Your task to perform on an android device: change the clock style Image 0: 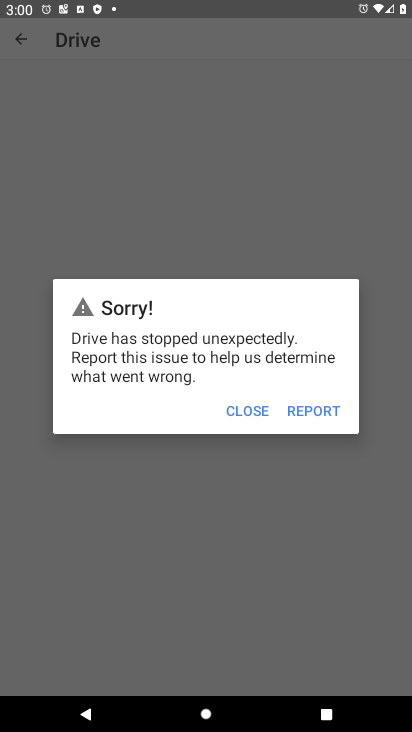
Step 0: press home button
Your task to perform on an android device: change the clock style Image 1: 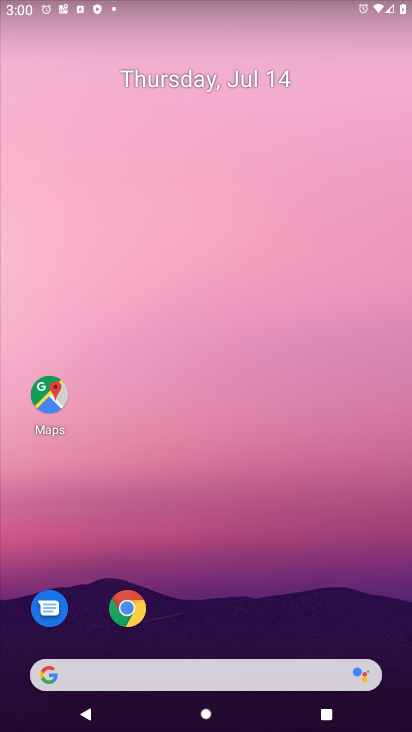
Step 1: drag from (366, 615) to (348, 78)
Your task to perform on an android device: change the clock style Image 2: 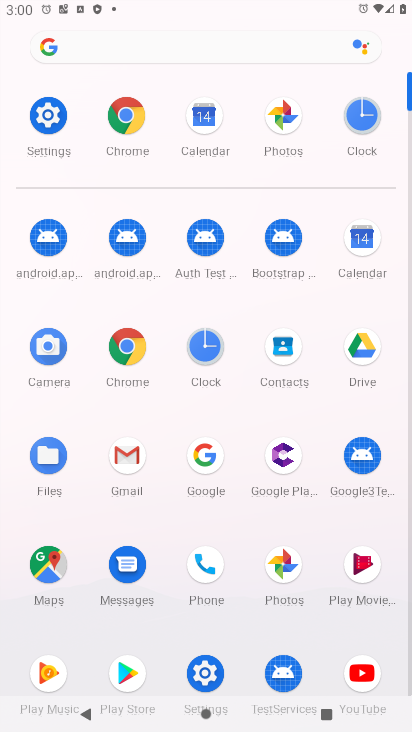
Step 2: click (204, 348)
Your task to perform on an android device: change the clock style Image 3: 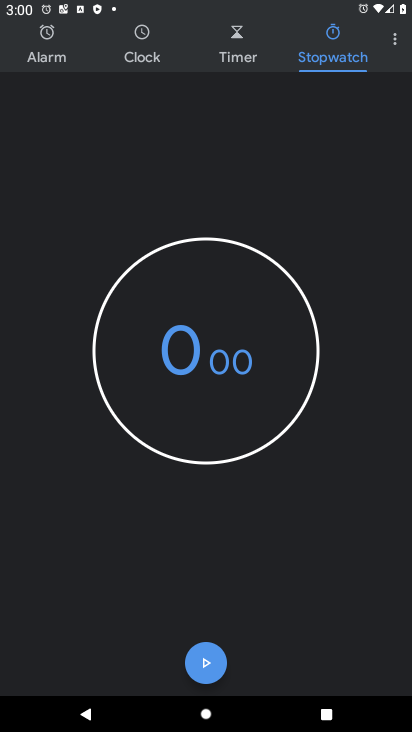
Step 3: click (395, 49)
Your task to perform on an android device: change the clock style Image 4: 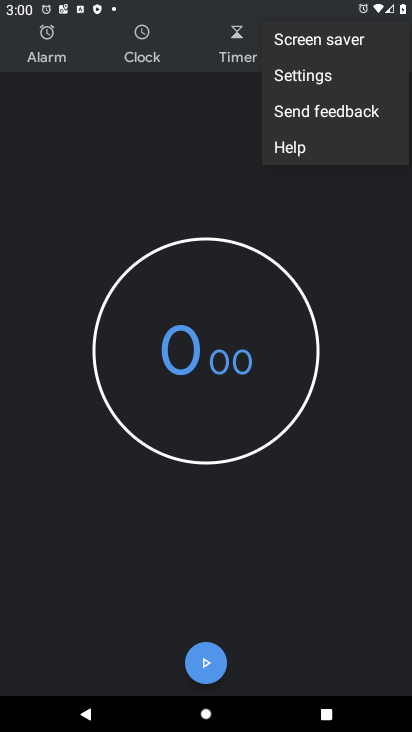
Step 4: click (301, 74)
Your task to perform on an android device: change the clock style Image 5: 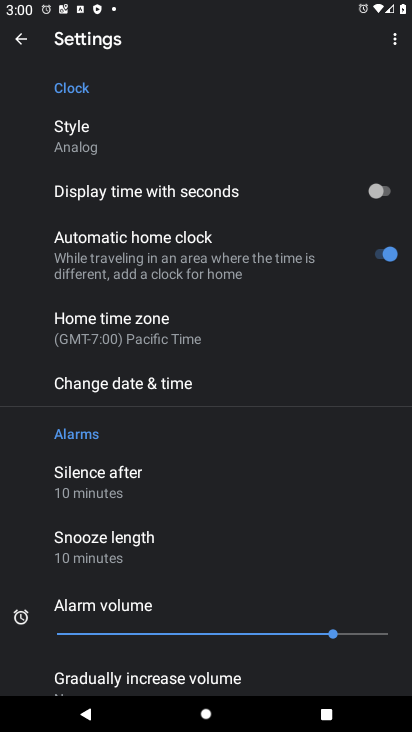
Step 5: click (74, 137)
Your task to perform on an android device: change the clock style Image 6: 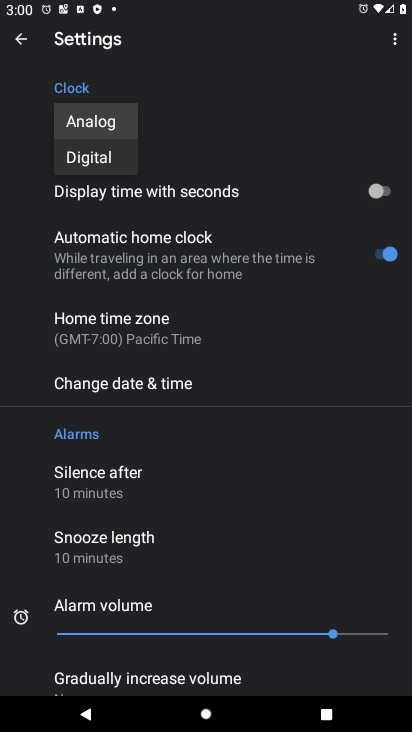
Step 6: click (89, 162)
Your task to perform on an android device: change the clock style Image 7: 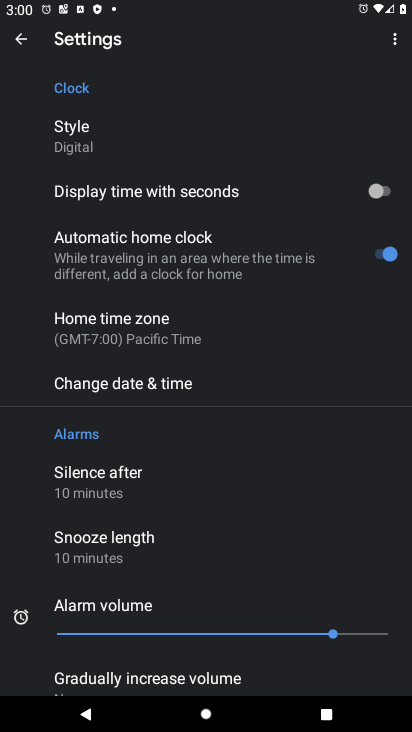
Step 7: task complete